Your task to perform on an android device: clear all cookies in the chrome app Image 0: 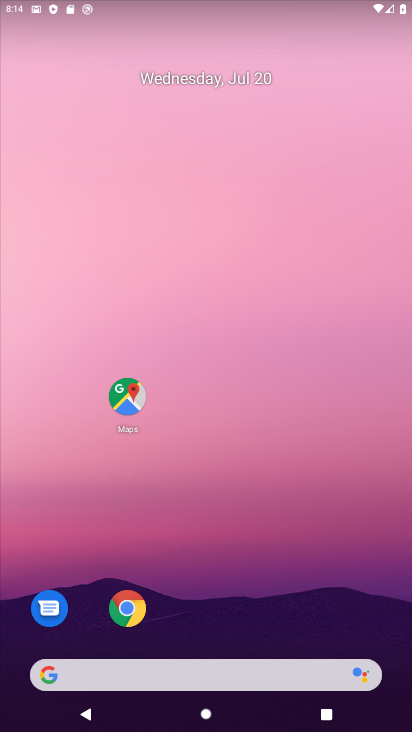
Step 0: task complete